Your task to perform on an android device: Go to Reddit.com Image 0: 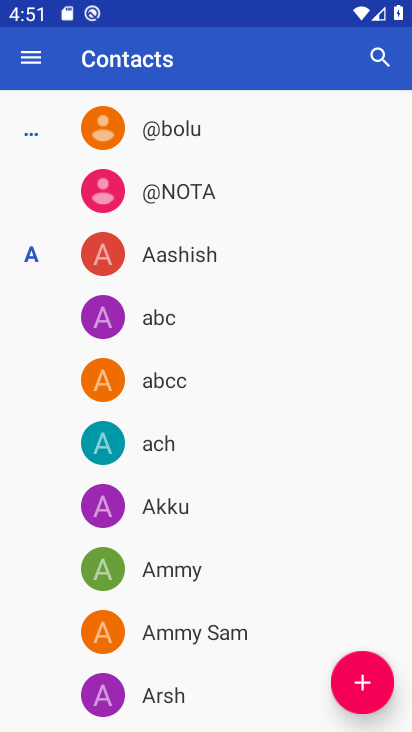
Step 0: press home button
Your task to perform on an android device: Go to Reddit.com Image 1: 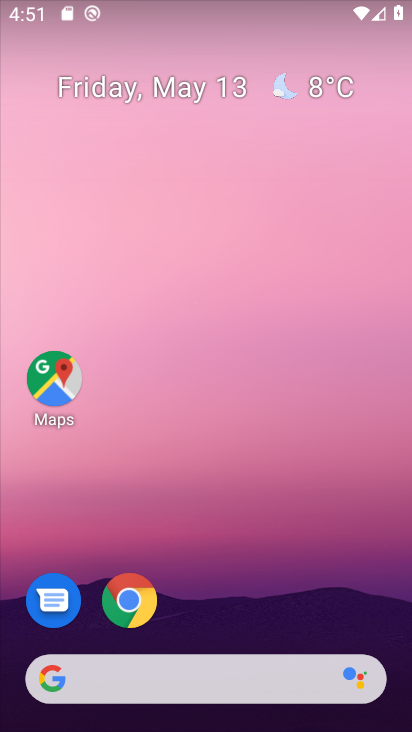
Step 1: drag from (290, 609) to (291, 515)
Your task to perform on an android device: Go to Reddit.com Image 2: 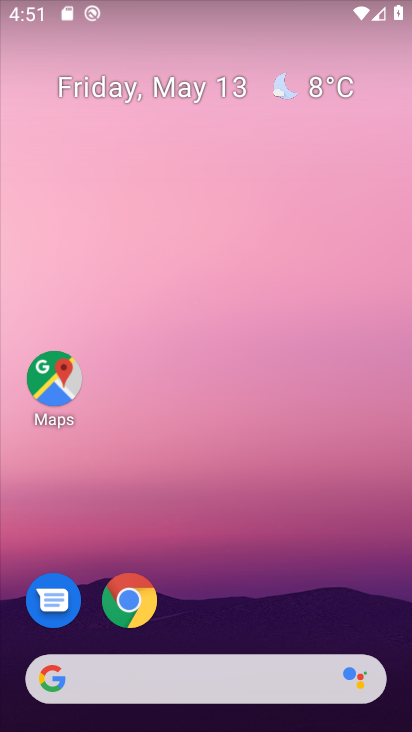
Step 2: click (136, 599)
Your task to perform on an android device: Go to Reddit.com Image 3: 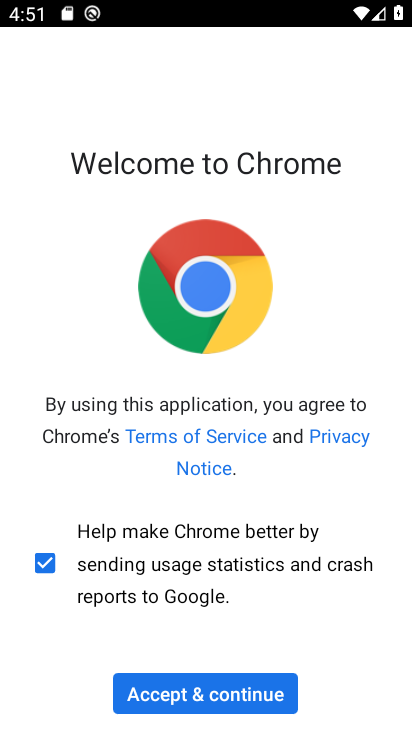
Step 3: click (201, 696)
Your task to perform on an android device: Go to Reddit.com Image 4: 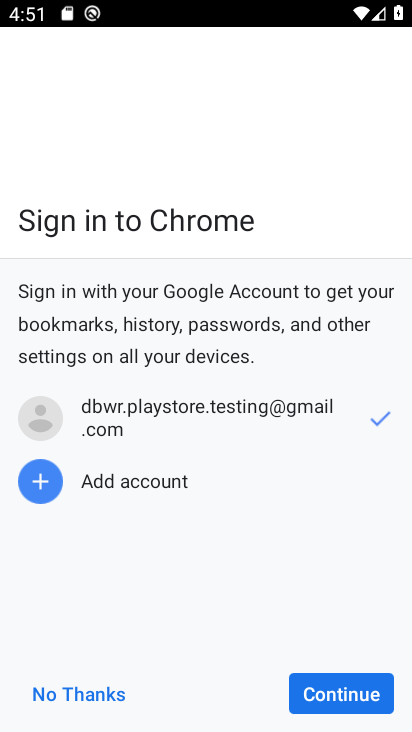
Step 4: click (317, 690)
Your task to perform on an android device: Go to Reddit.com Image 5: 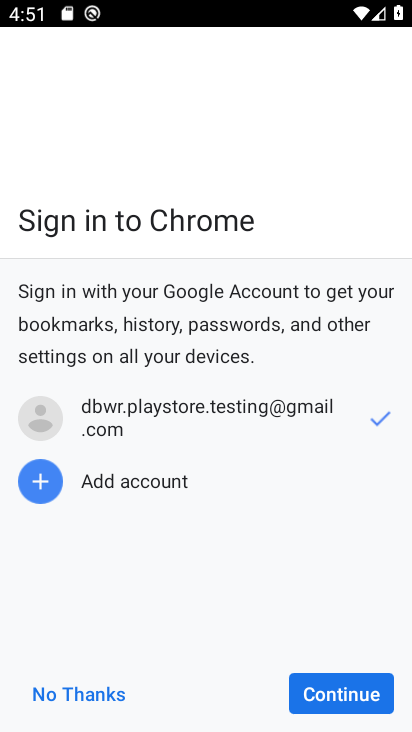
Step 5: click (317, 690)
Your task to perform on an android device: Go to Reddit.com Image 6: 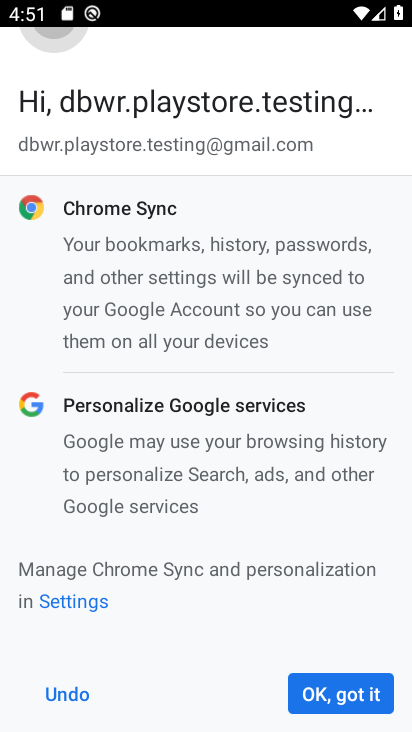
Step 6: click (317, 690)
Your task to perform on an android device: Go to Reddit.com Image 7: 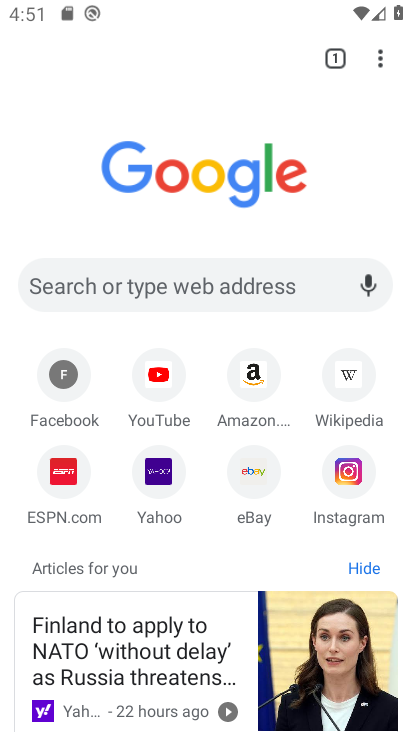
Step 7: click (260, 272)
Your task to perform on an android device: Go to Reddit.com Image 8: 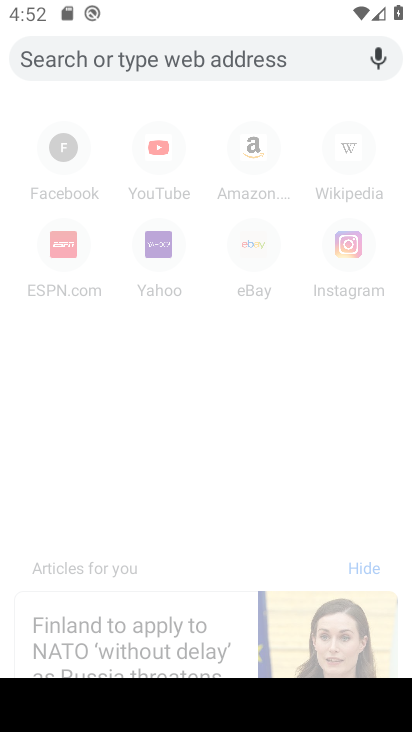
Step 8: type "reddit"
Your task to perform on an android device: Go to Reddit.com Image 9: 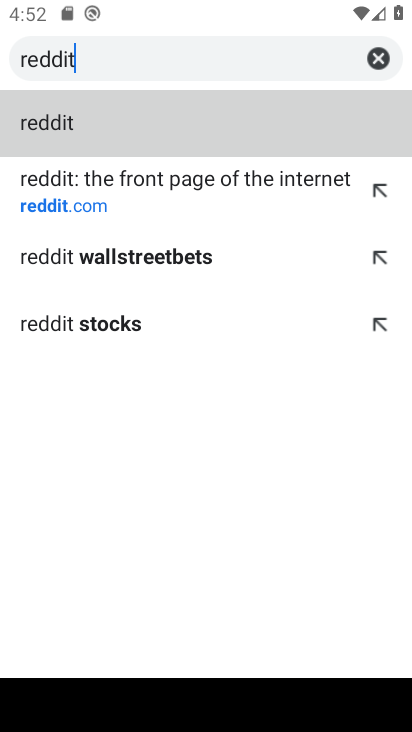
Step 9: click (249, 208)
Your task to perform on an android device: Go to Reddit.com Image 10: 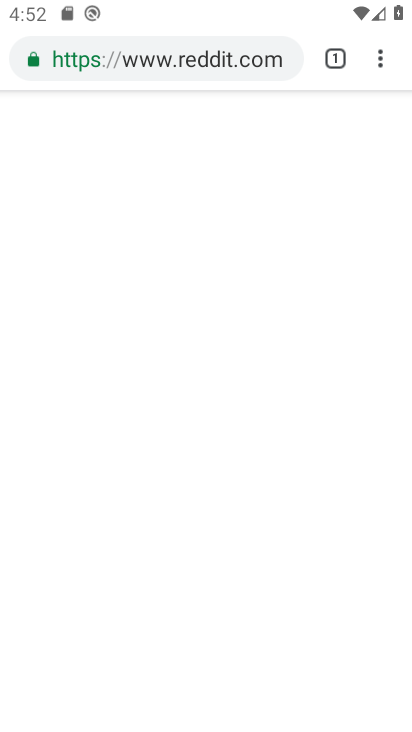
Step 10: task complete